Your task to perform on an android device: turn off wifi Image 0: 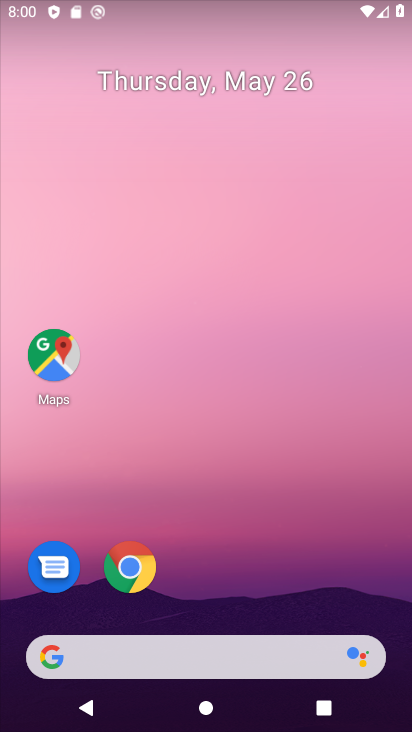
Step 0: click (62, 338)
Your task to perform on an android device: turn off wifi Image 1: 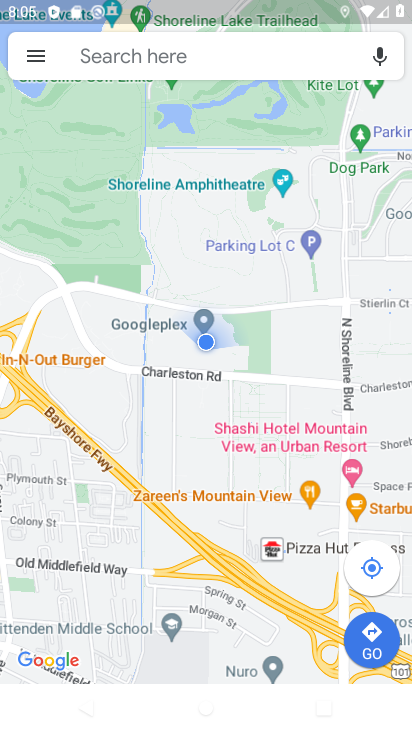
Step 1: press home button
Your task to perform on an android device: turn off wifi Image 2: 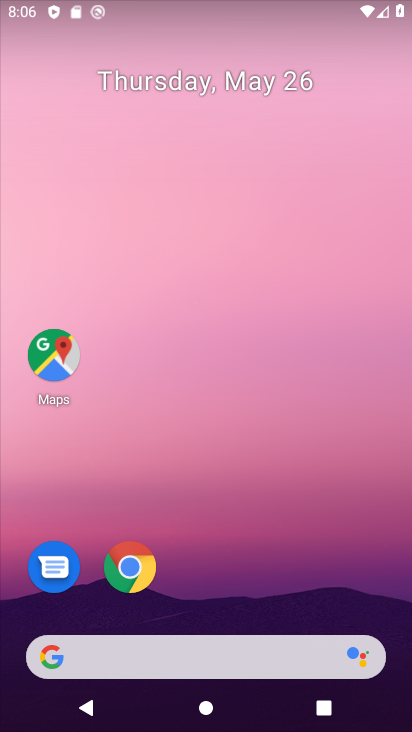
Step 2: drag from (259, 711) to (8, 3)
Your task to perform on an android device: turn off wifi Image 3: 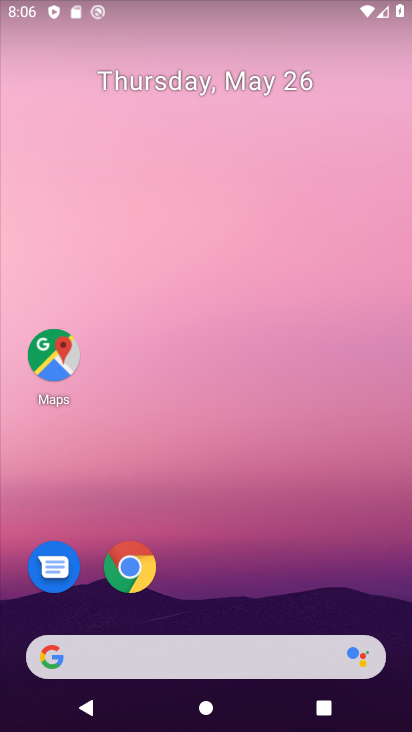
Step 3: drag from (264, 707) to (121, 33)
Your task to perform on an android device: turn off wifi Image 4: 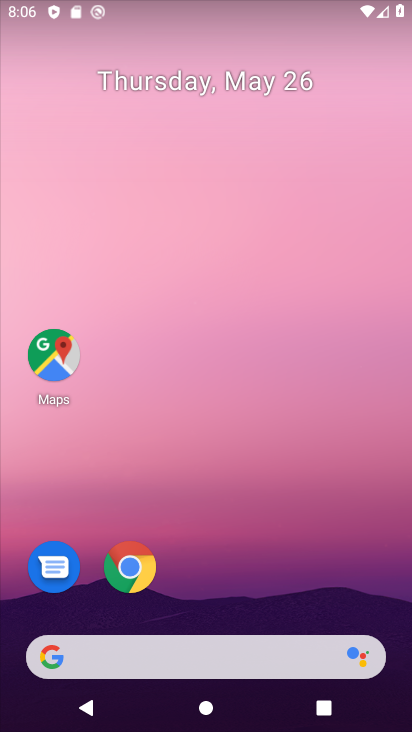
Step 4: drag from (252, 638) to (330, 7)
Your task to perform on an android device: turn off wifi Image 5: 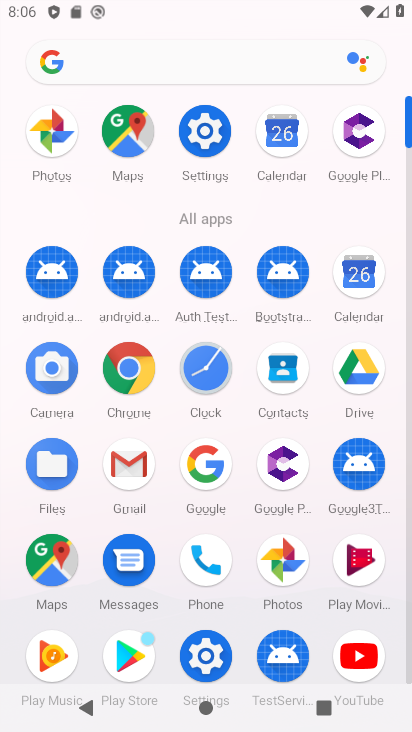
Step 5: click (198, 131)
Your task to perform on an android device: turn off wifi Image 6: 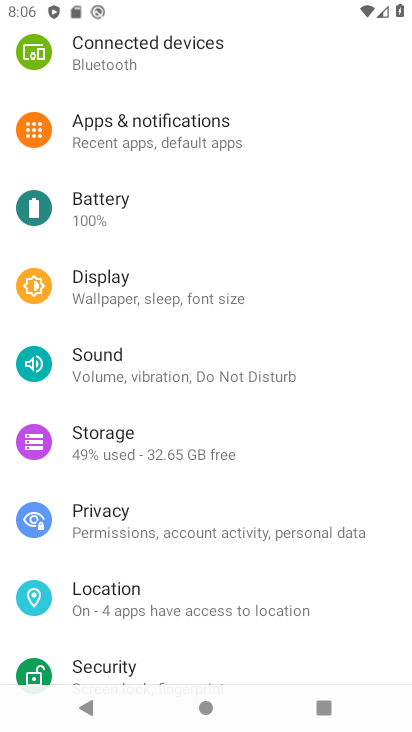
Step 6: drag from (325, 140) to (319, 697)
Your task to perform on an android device: turn off wifi Image 7: 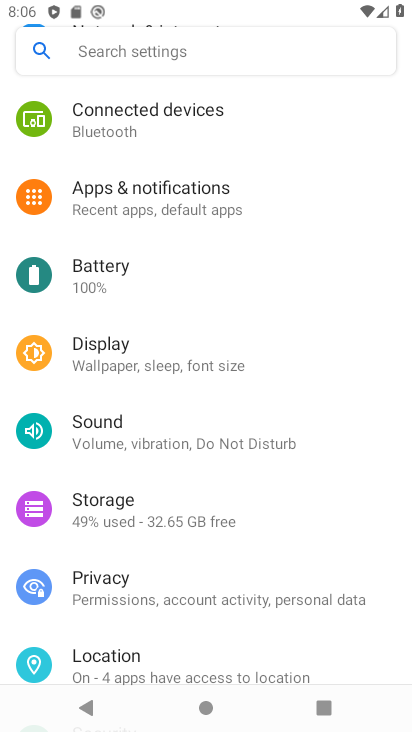
Step 7: drag from (333, 98) to (305, 613)
Your task to perform on an android device: turn off wifi Image 8: 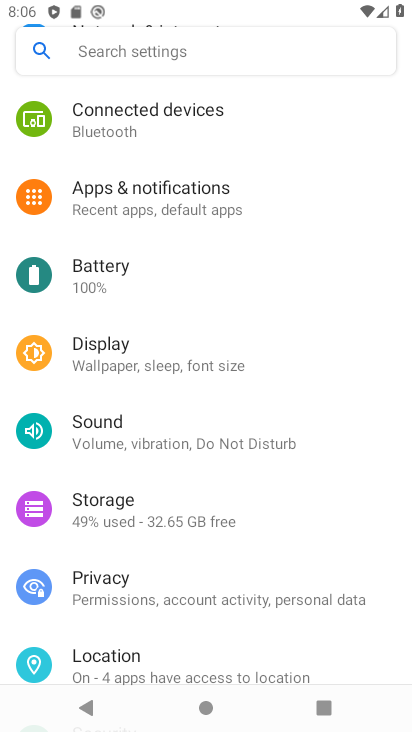
Step 8: drag from (317, 164) to (280, 721)
Your task to perform on an android device: turn off wifi Image 9: 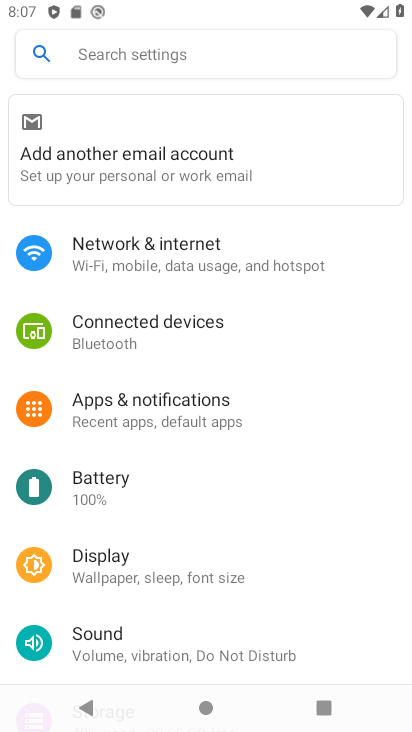
Step 9: click (286, 260)
Your task to perform on an android device: turn off wifi Image 10: 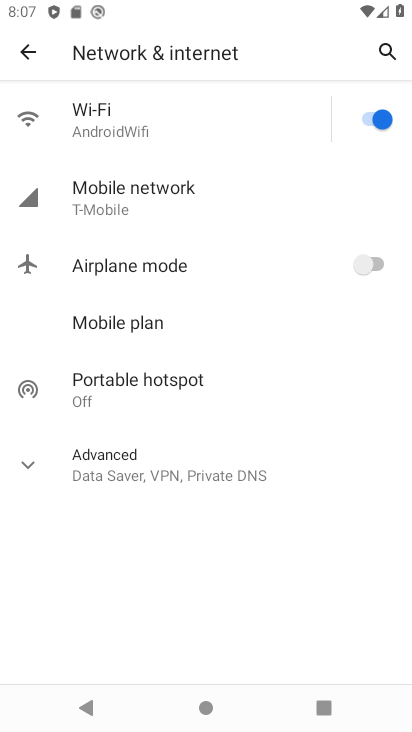
Step 10: click (372, 126)
Your task to perform on an android device: turn off wifi Image 11: 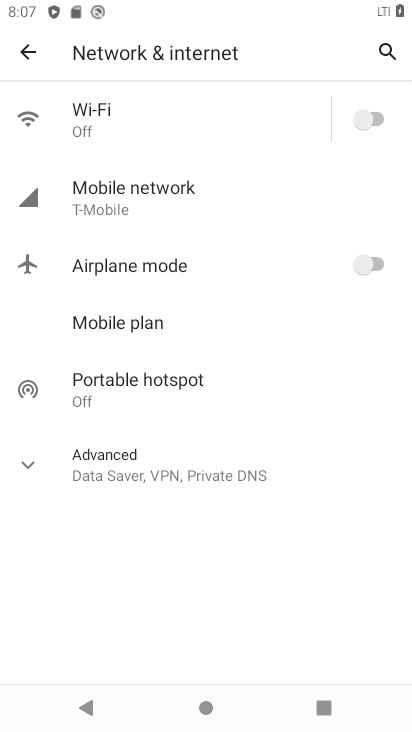
Step 11: task complete